Your task to perform on an android device: turn off data saver in the chrome app Image 0: 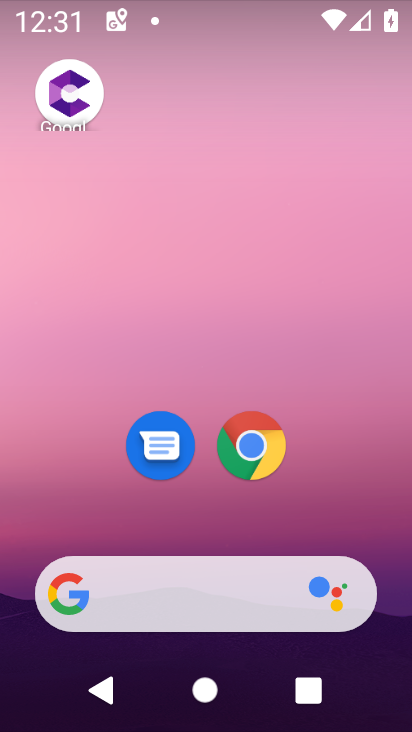
Step 0: click (255, 444)
Your task to perform on an android device: turn off data saver in the chrome app Image 1: 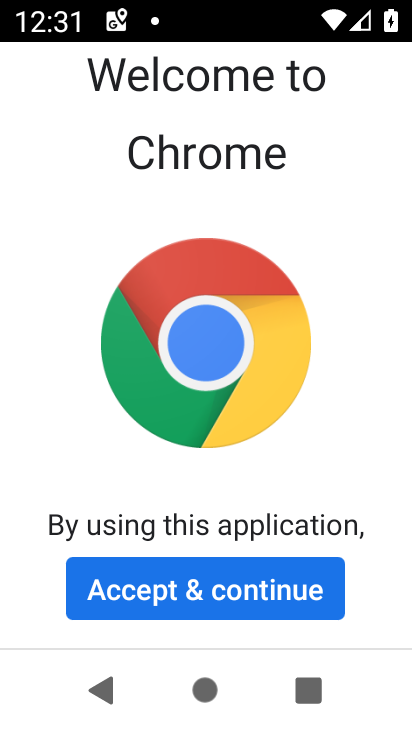
Step 1: click (192, 578)
Your task to perform on an android device: turn off data saver in the chrome app Image 2: 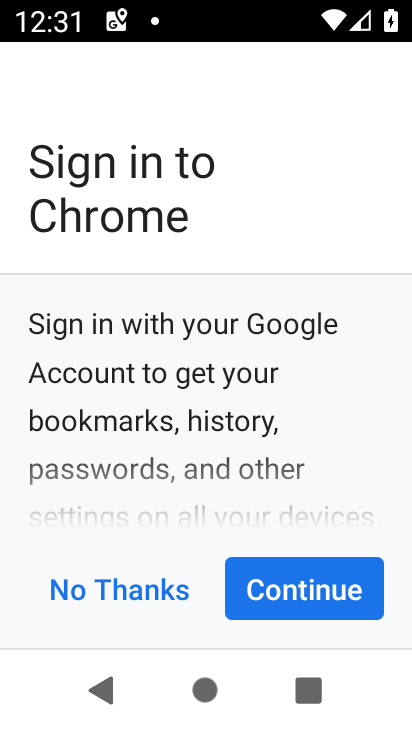
Step 2: click (293, 590)
Your task to perform on an android device: turn off data saver in the chrome app Image 3: 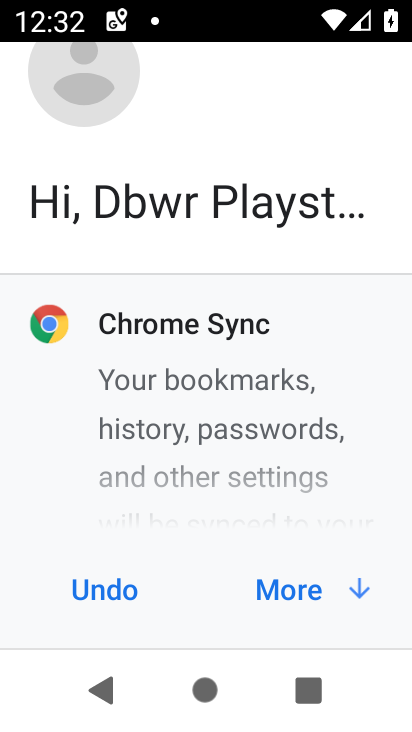
Step 3: click (293, 590)
Your task to perform on an android device: turn off data saver in the chrome app Image 4: 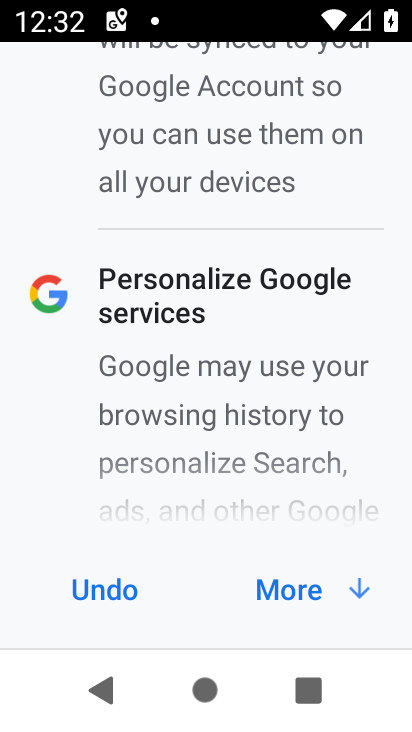
Step 4: click (293, 590)
Your task to perform on an android device: turn off data saver in the chrome app Image 5: 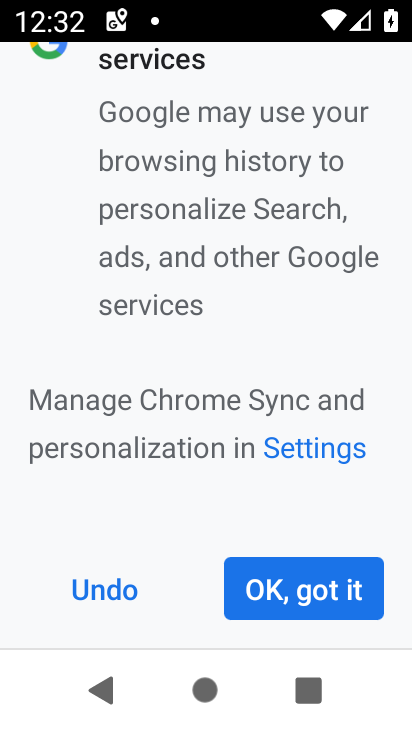
Step 5: click (293, 590)
Your task to perform on an android device: turn off data saver in the chrome app Image 6: 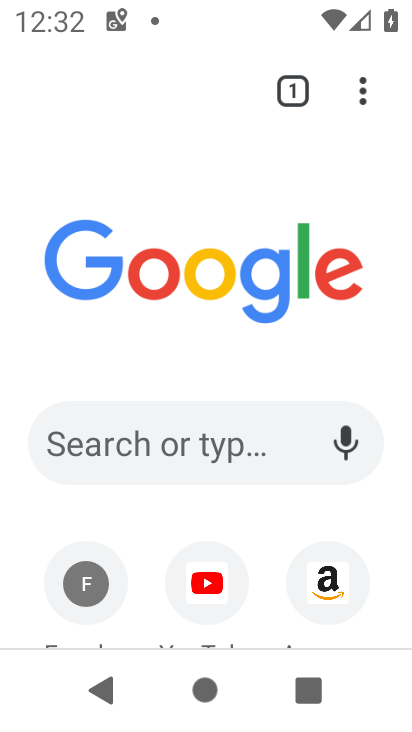
Step 6: click (362, 92)
Your task to perform on an android device: turn off data saver in the chrome app Image 7: 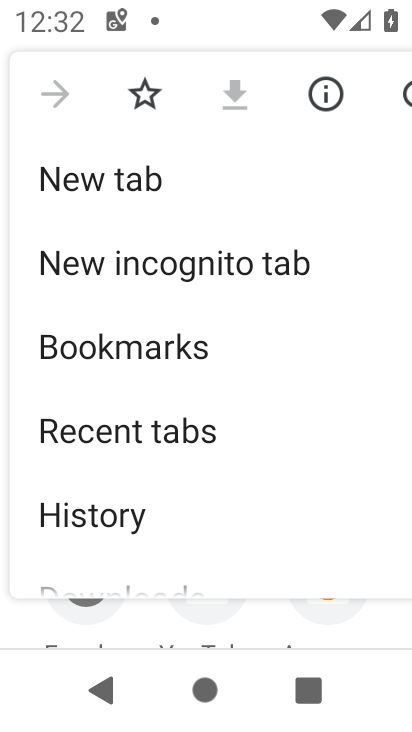
Step 7: drag from (154, 468) to (179, 368)
Your task to perform on an android device: turn off data saver in the chrome app Image 8: 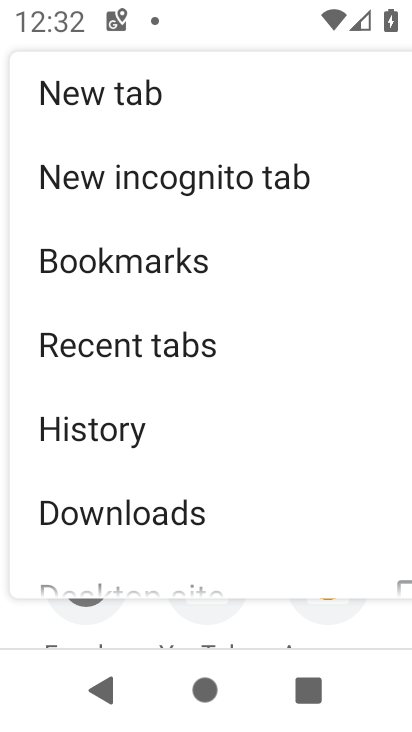
Step 8: drag from (121, 495) to (182, 377)
Your task to perform on an android device: turn off data saver in the chrome app Image 9: 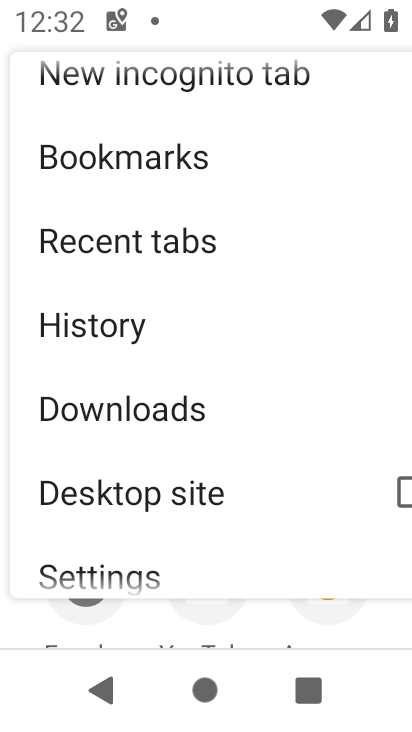
Step 9: drag from (105, 446) to (183, 311)
Your task to perform on an android device: turn off data saver in the chrome app Image 10: 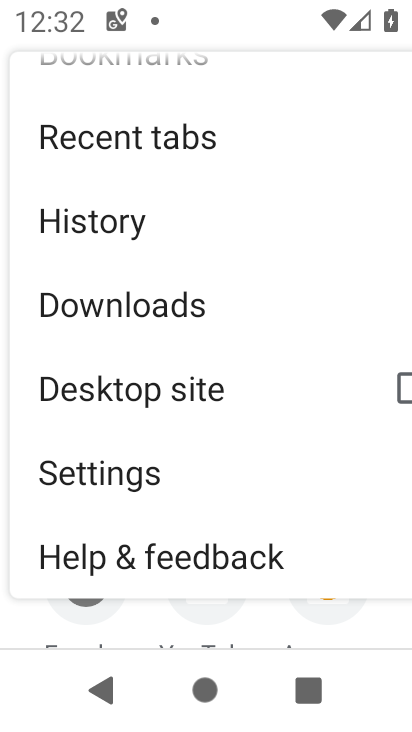
Step 10: drag from (112, 428) to (180, 316)
Your task to perform on an android device: turn off data saver in the chrome app Image 11: 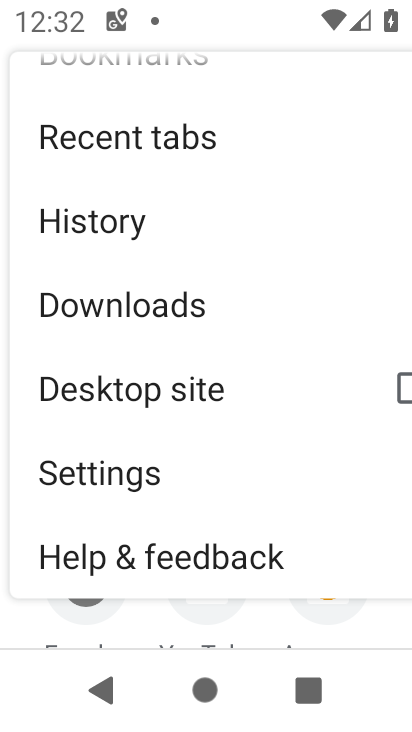
Step 11: drag from (113, 448) to (178, 304)
Your task to perform on an android device: turn off data saver in the chrome app Image 12: 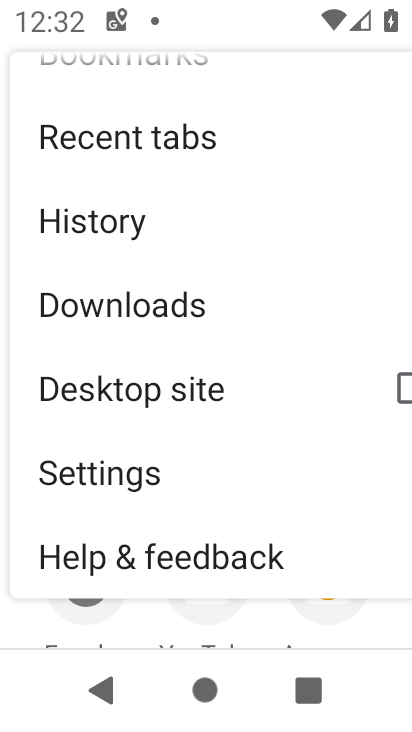
Step 12: click (91, 468)
Your task to perform on an android device: turn off data saver in the chrome app Image 13: 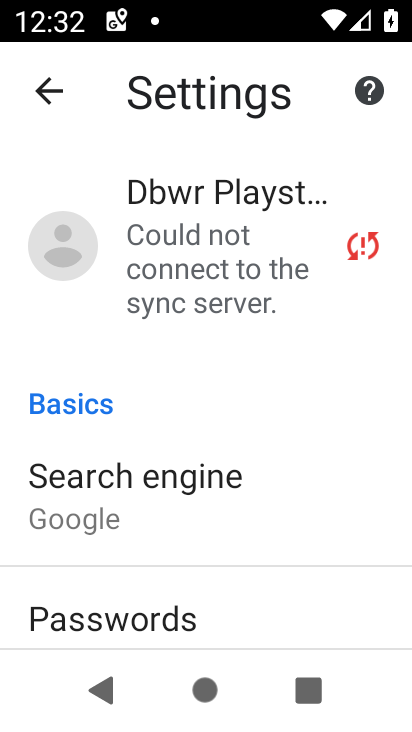
Step 13: drag from (152, 532) to (206, 369)
Your task to perform on an android device: turn off data saver in the chrome app Image 14: 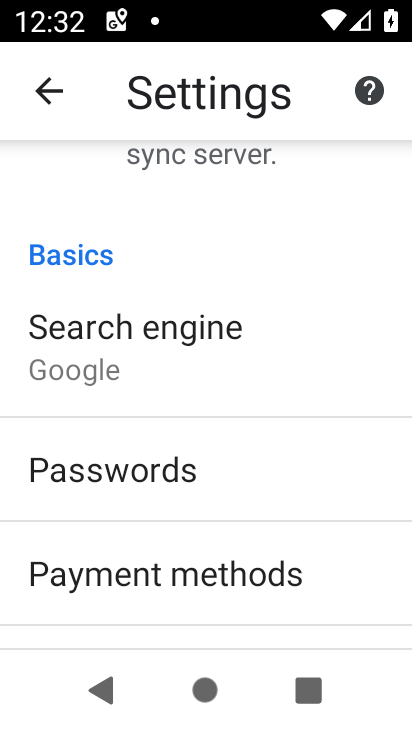
Step 14: drag from (141, 529) to (175, 374)
Your task to perform on an android device: turn off data saver in the chrome app Image 15: 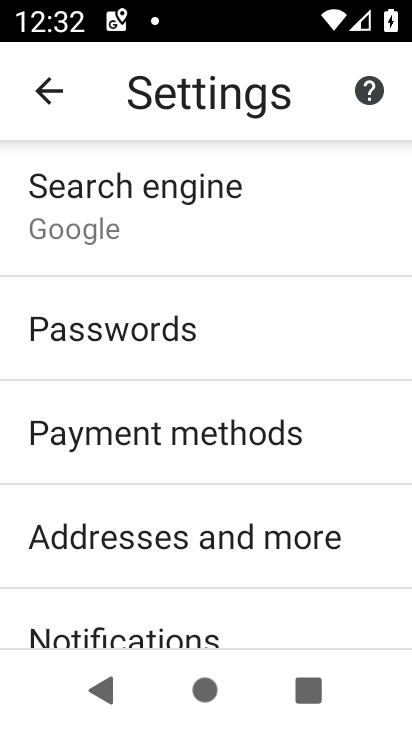
Step 15: drag from (126, 498) to (216, 362)
Your task to perform on an android device: turn off data saver in the chrome app Image 16: 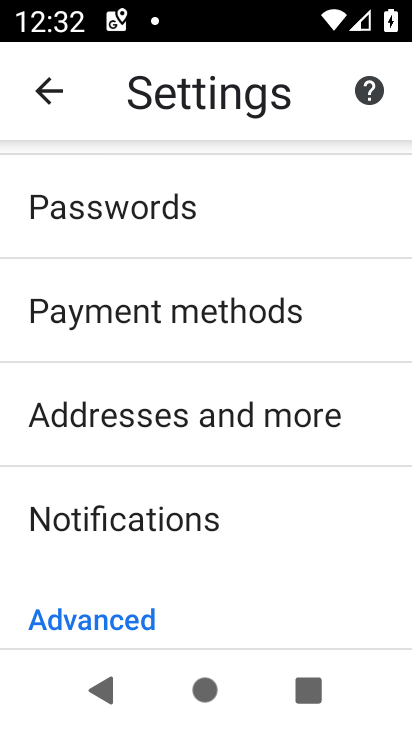
Step 16: drag from (118, 493) to (179, 381)
Your task to perform on an android device: turn off data saver in the chrome app Image 17: 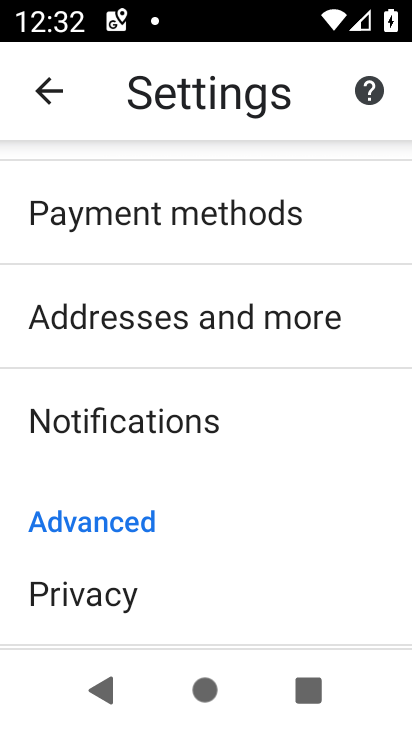
Step 17: drag from (115, 489) to (198, 371)
Your task to perform on an android device: turn off data saver in the chrome app Image 18: 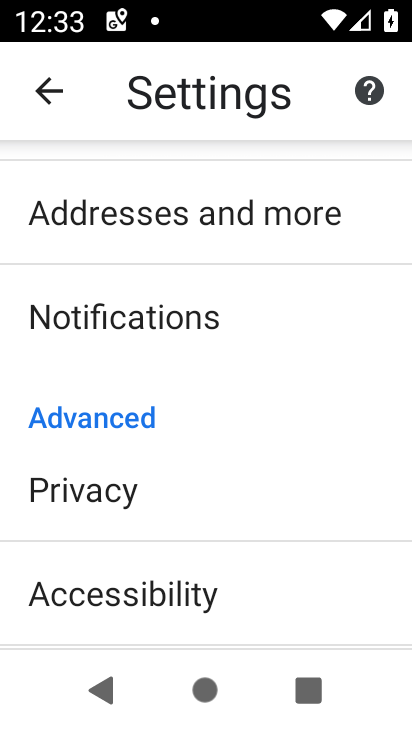
Step 18: drag from (87, 534) to (162, 412)
Your task to perform on an android device: turn off data saver in the chrome app Image 19: 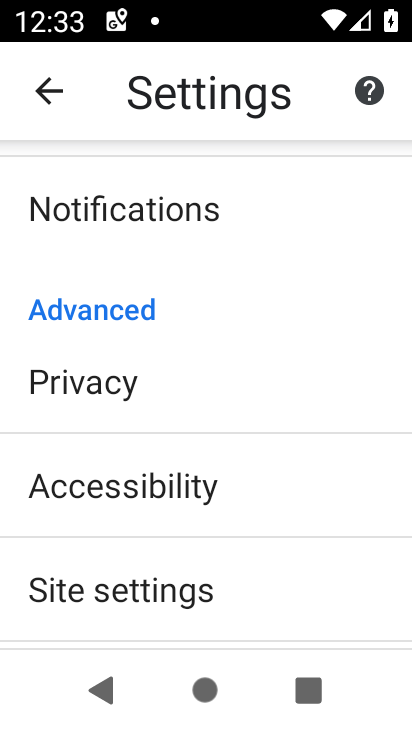
Step 19: drag from (109, 531) to (163, 438)
Your task to perform on an android device: turn off data saver in the chrome app Image 20: 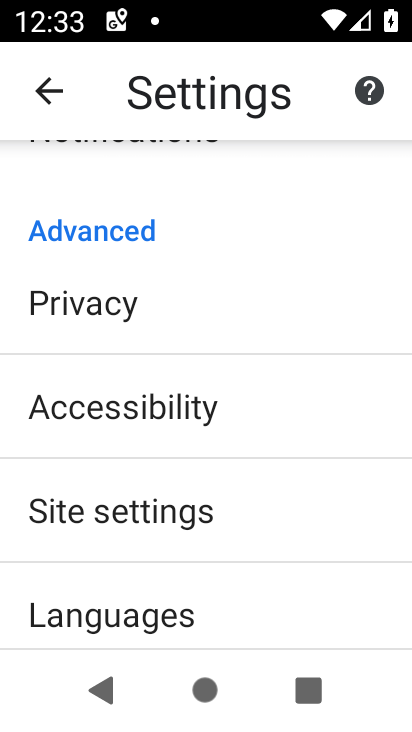
Step 20: drag from (87, 590) to (188, 456)
Your task to perform on an android device: turn off data saver in the chrome app Image 21: 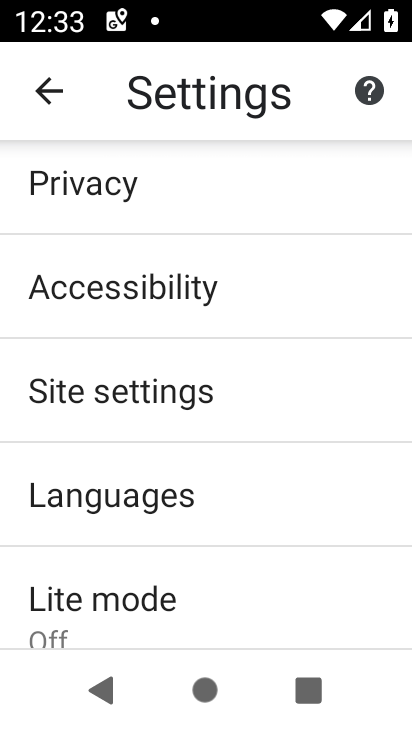
Step 21: click (136, 590)
Your task to perform on an android device: turn off data saver in the chrome app Image 22: 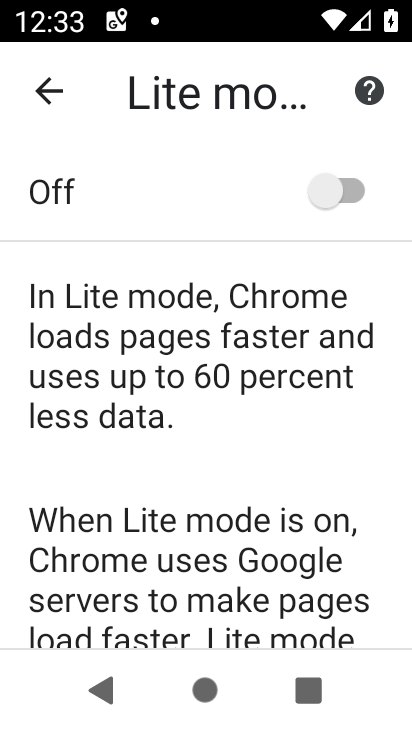
Step 22: task complete